Your task to perform on an android device: turn pop-ups off in chrome Image 0: 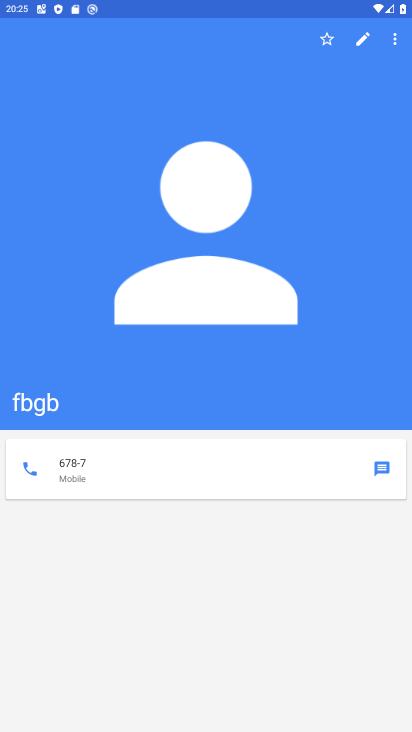
Step 0: press back button
Your task to perform on an android device: turn pop-ups off in chrome Image 1: 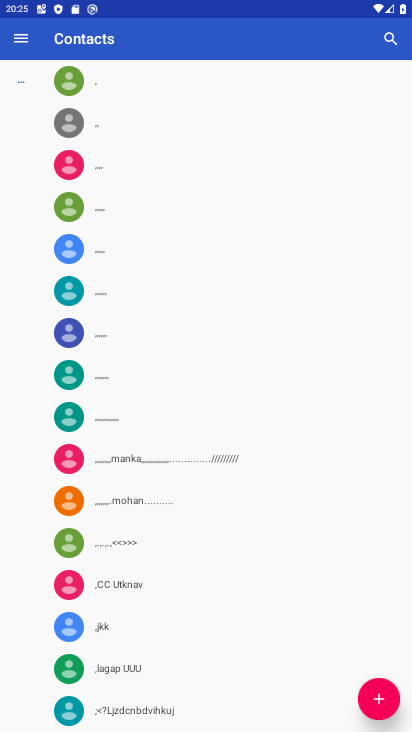
Step 1: press back button
Your task to perform on an android device: turn pop-ups off in chrome Image 2: 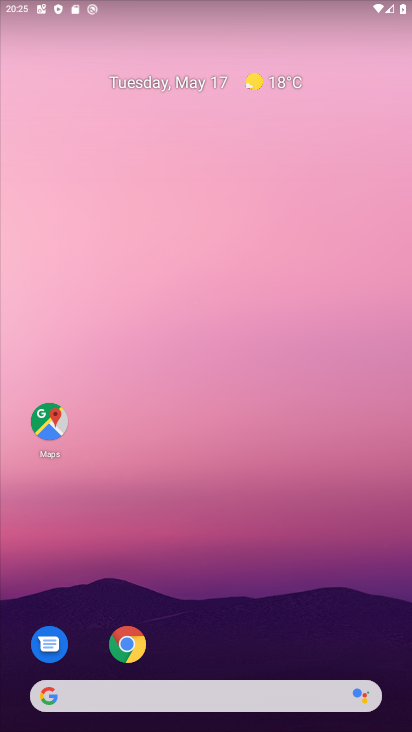
Step 2: click (130, 648)
Your task to perform on an android device: turn pop-ups off in chrome Image 3: 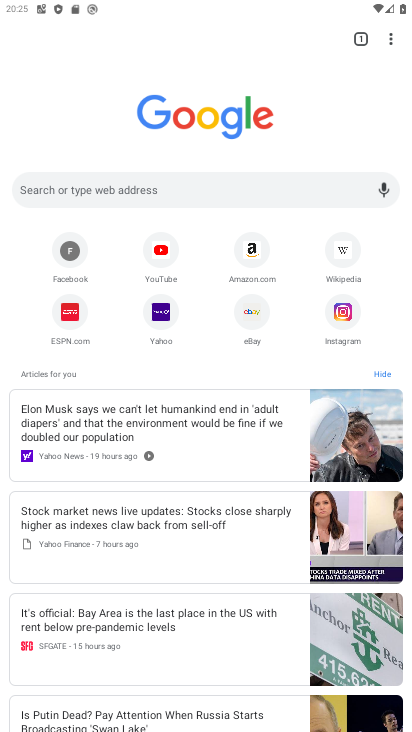
Step 3: click (388, 33)
Your task to perform on an android device: turn pop-ups off in chrome Image 4: 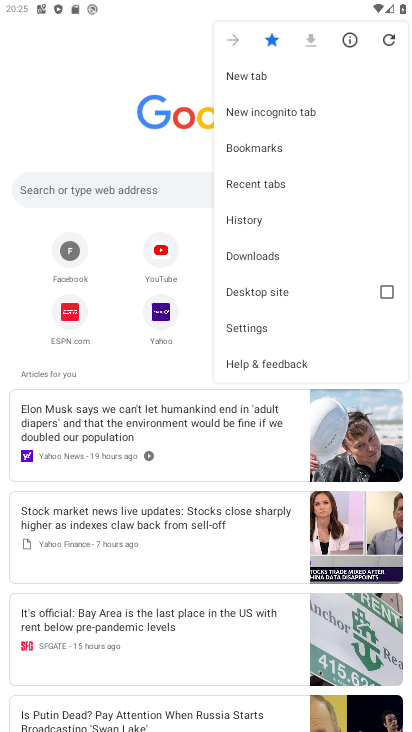
Step 4: click (254, 319)
Your task to perform on an android device: turn pop-ups off in chrome Image 5: 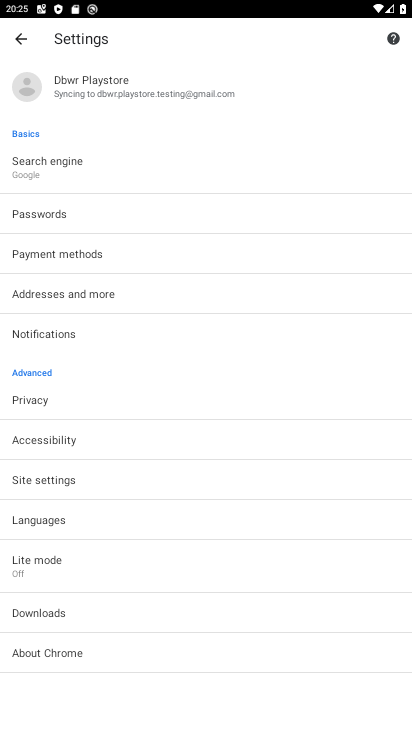
Step 5: click (50, 484)
Your task to perform on an android device: turn pop-ups off in chrome Image 6: 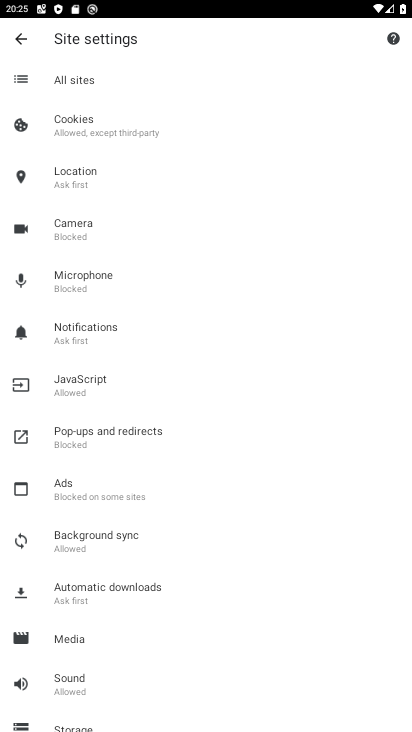
Step 6: click (121, 437)
Your task to perform on an android device: turn pop-ups off in chrome Image 7: 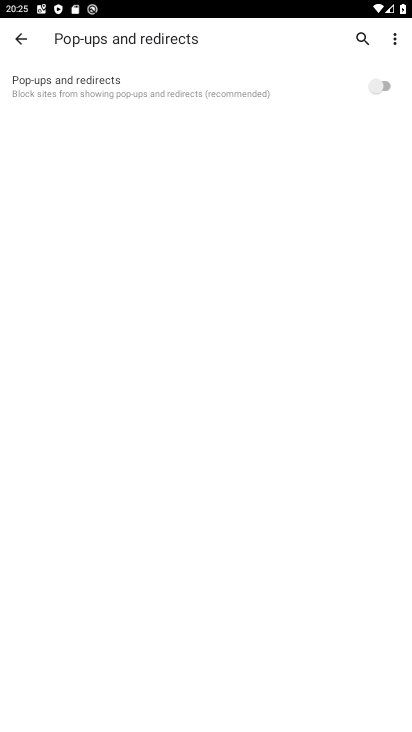
Step 7: task complete